Your task to perform on an android device: Open calendar and show me the fourth week of next month Image 0: 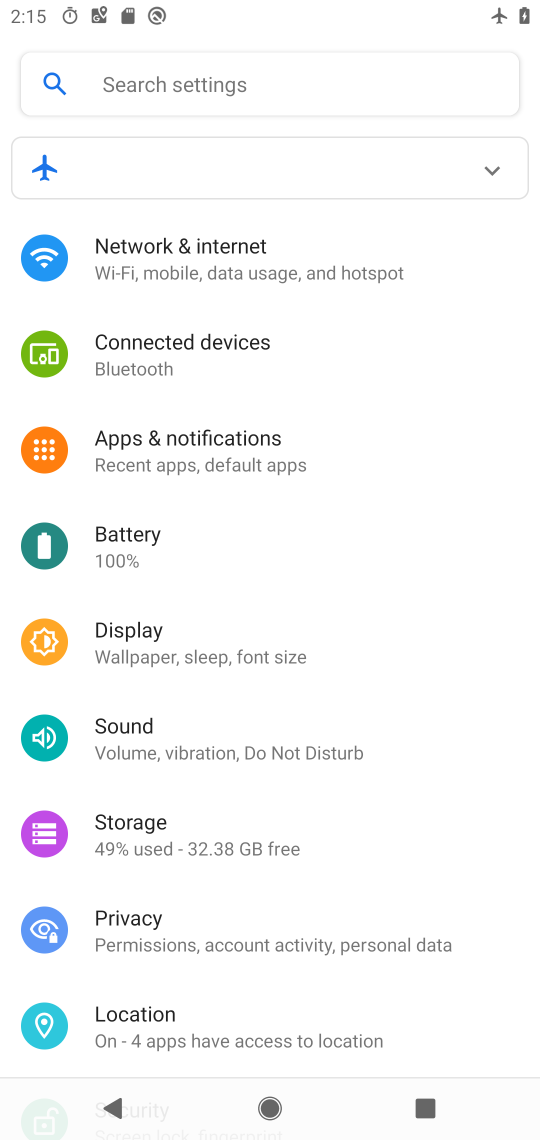
Step 0: press home button
Your task to perform on an android device: Open calendar and show me the fourth week of next month Image 1: 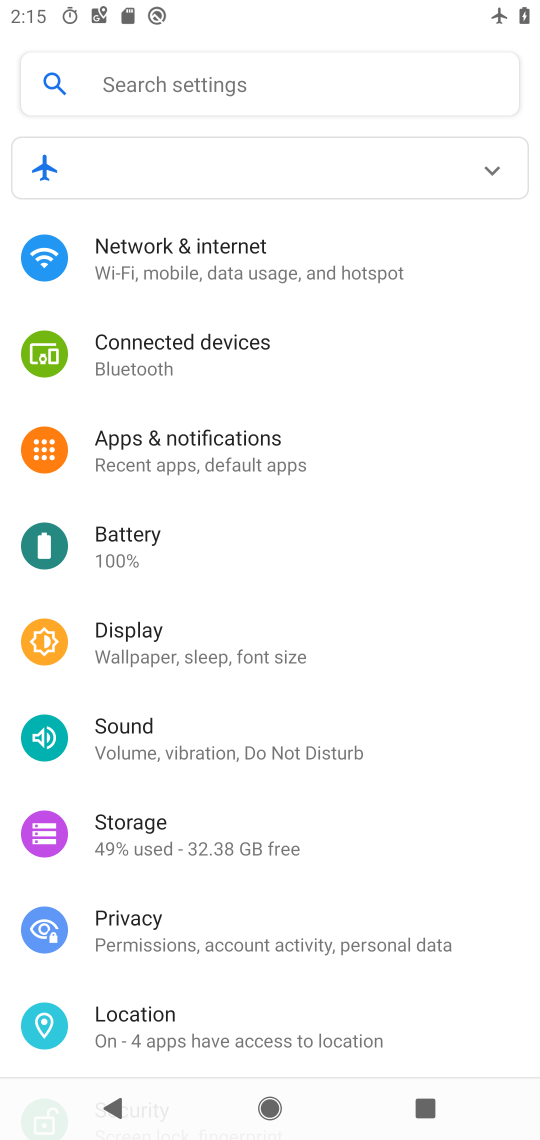
Step 1: press home button
Your task to perform on an android device: Open calendar and show me the fourth week of next month Image 2: 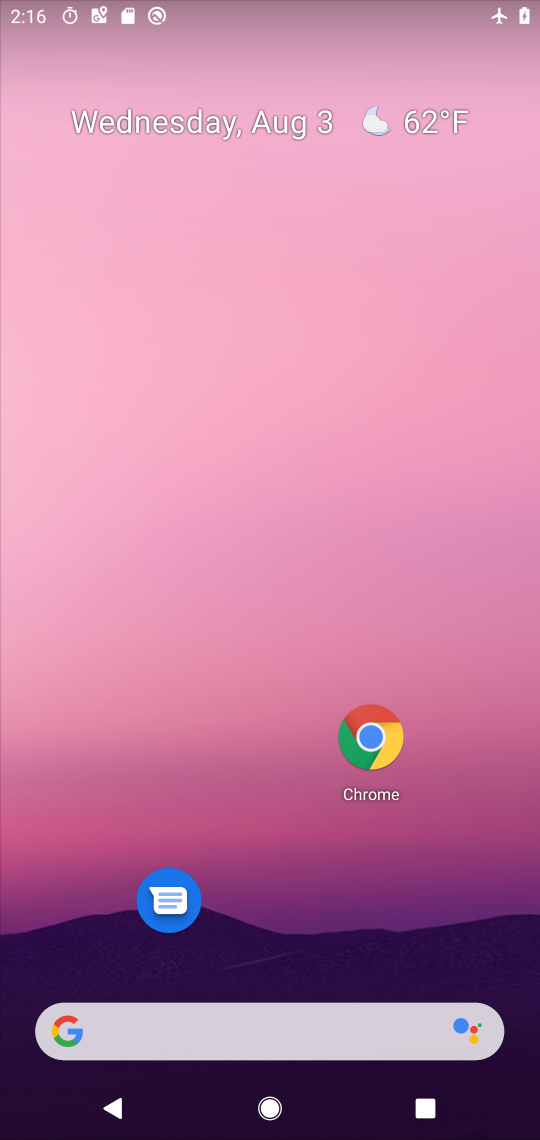
Step 2: drag from (303, 912) to (243, 162)
Your task to perform on an android device: Open calendar and show me the fourth week of next month Image 3: 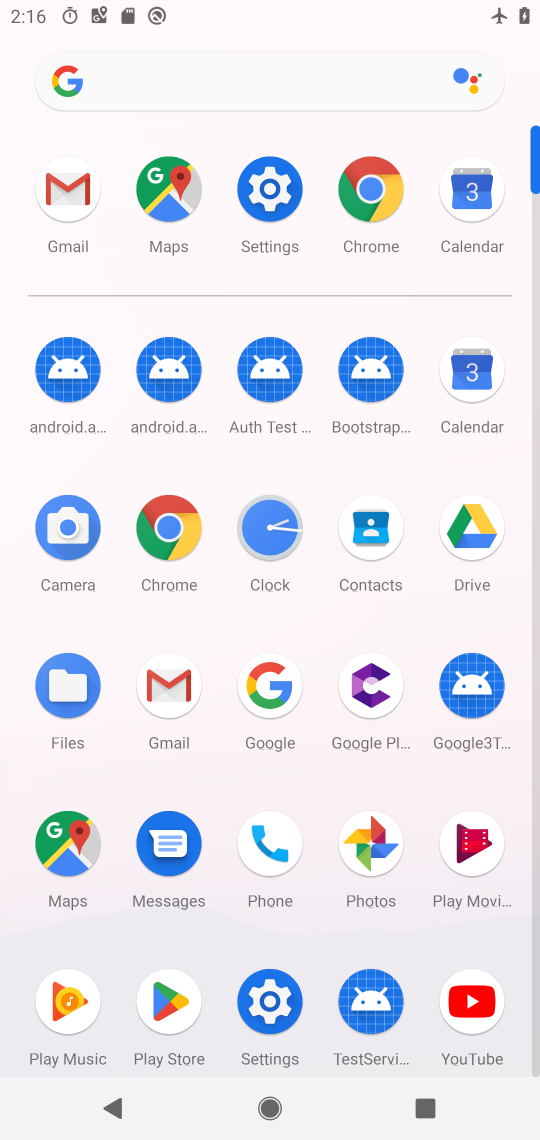
Step 3: click (467, 370)
Your task to perform on an android device: Open calendar and show me the fourth week of next month Image 4: 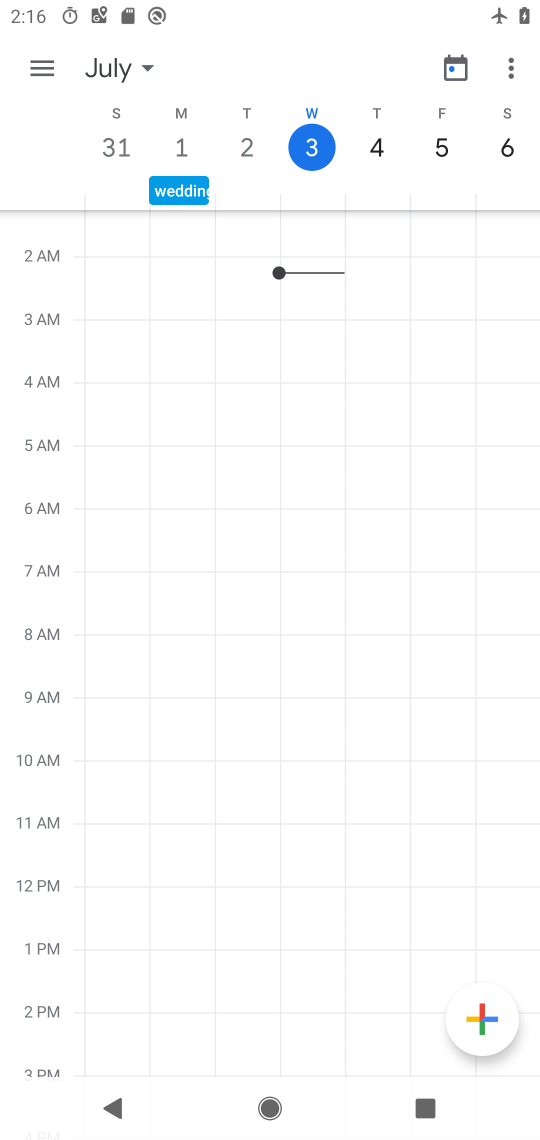
Step 4: click (141, 63)
Your task to perform on an android device: Open calendar and show me the fourth week of next month Image 5: 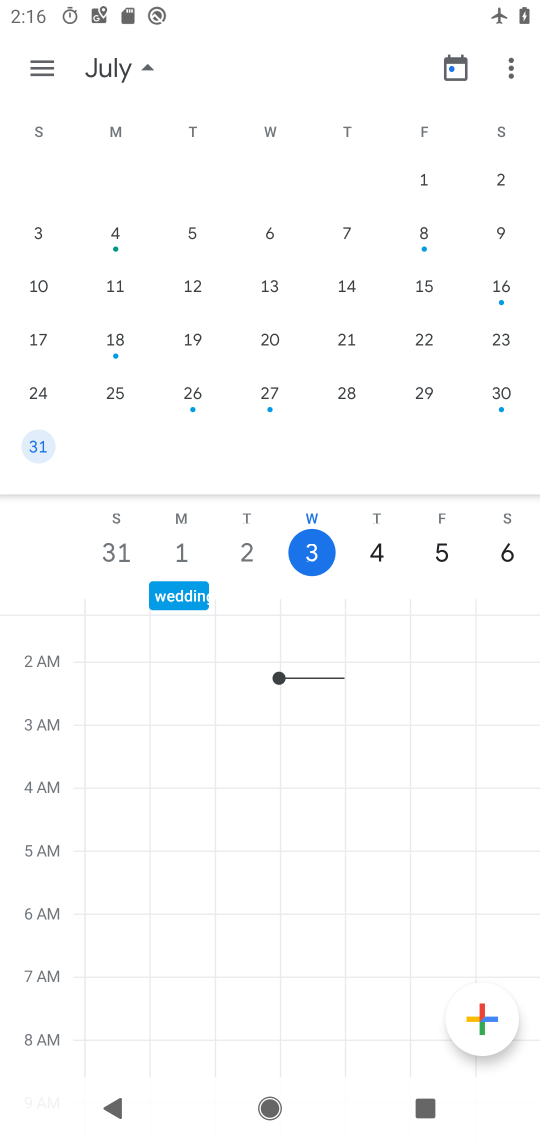
Step 5: drag from (460, 375) to (77, 351)
Your task to perform on an android device: Open calendar and show me the fourth week of next month Image 6: 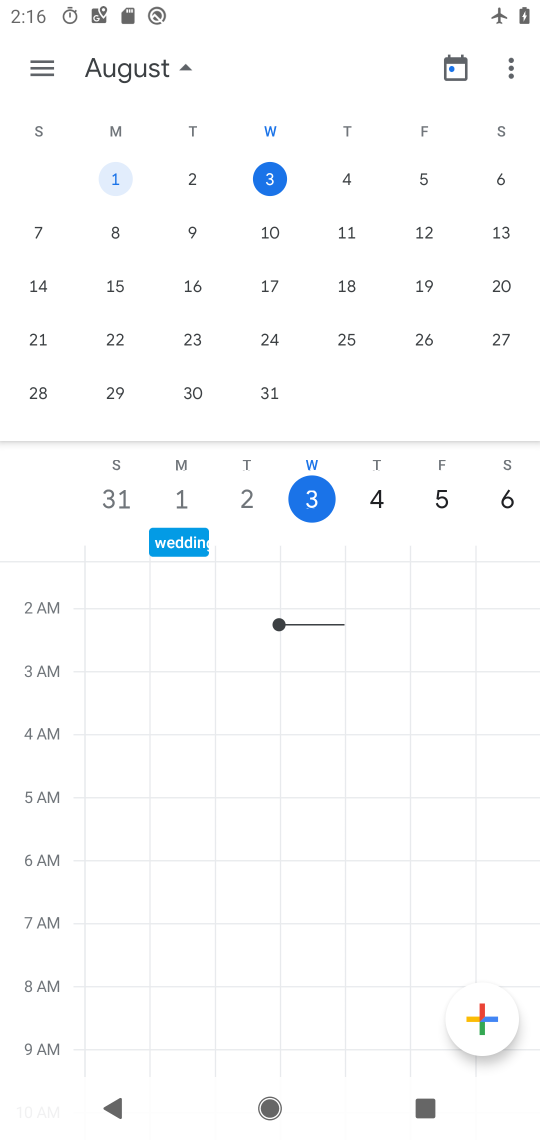
Step 6: drag from (444, 303) to (97, 307)
Your task to perform on an android device: Open calendar and show me the fourth week of next month Image 7: 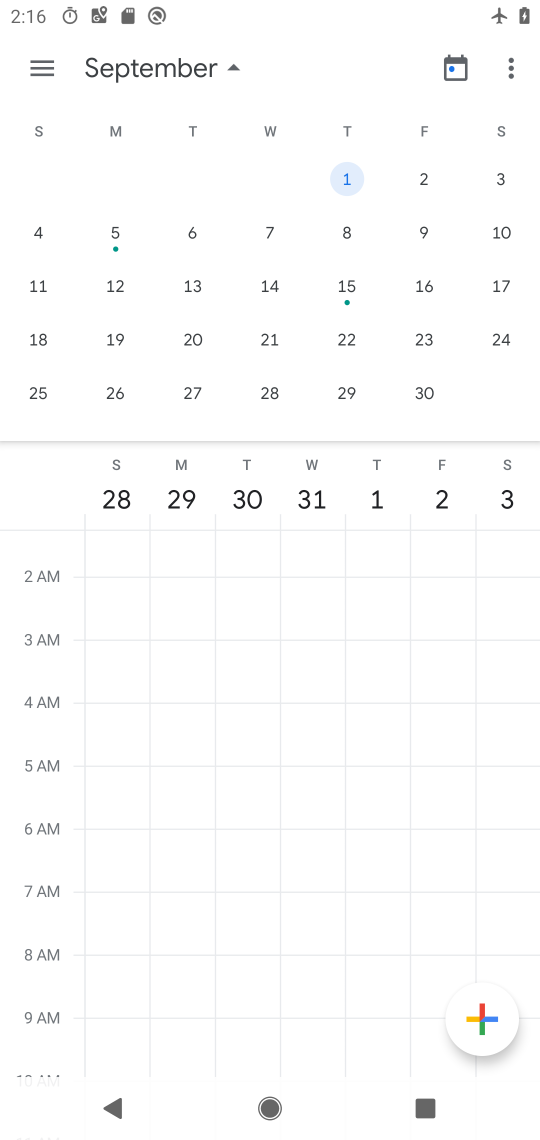
Step 7: click (121, 389)
Your task to perform on an android device: Open calendar and show me the fourth week of next month Image 8: 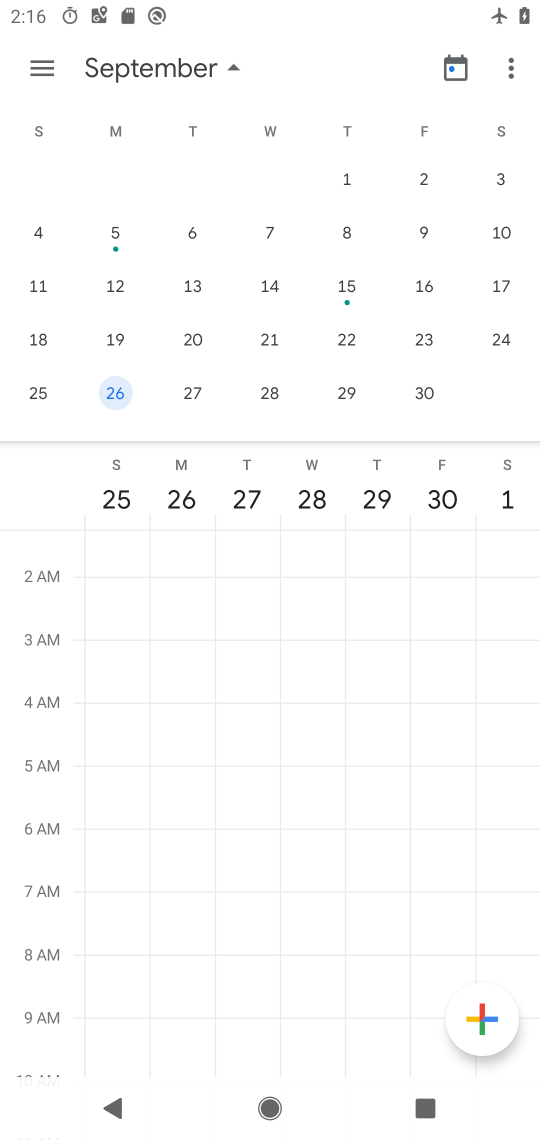
Step 8: click (45, 59)
Your task to perform on an android device: Open calendar and show me the fourth week of next month Image 9: 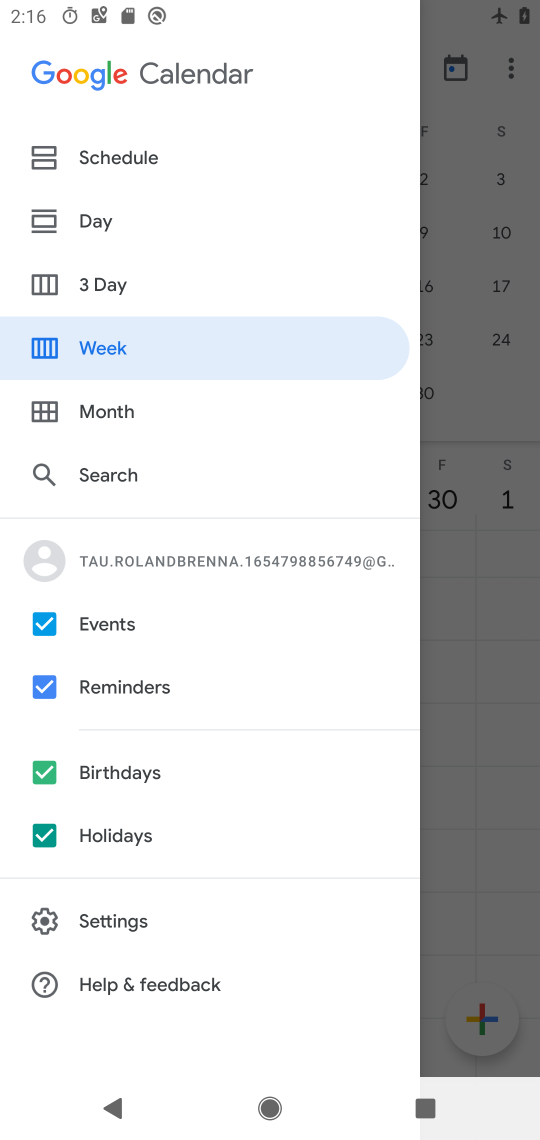
Step 9: click (135, 342)
Your task to perform on an android device: Open calendar and show me the fourth week of next month Image 10: 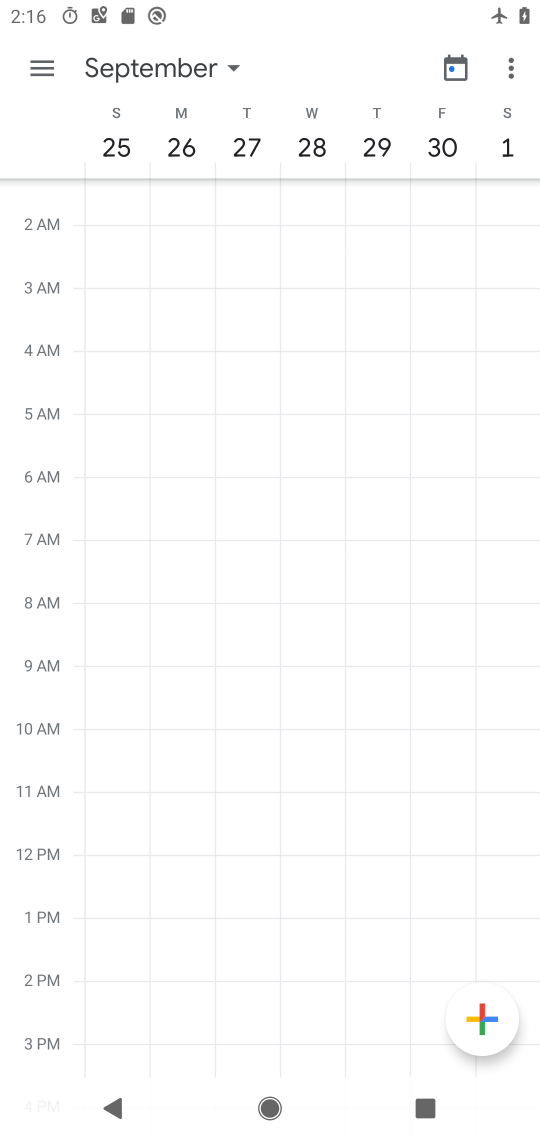
Step 10: task complete